Your task to perform on an android device: Go to ESPN.com Image 0: 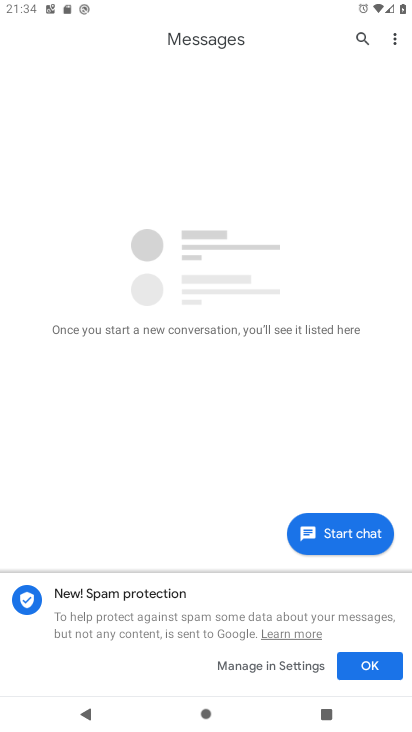
Step 0: press home button
Your task to perform on an android device: Go to ESPN.com Image 1: 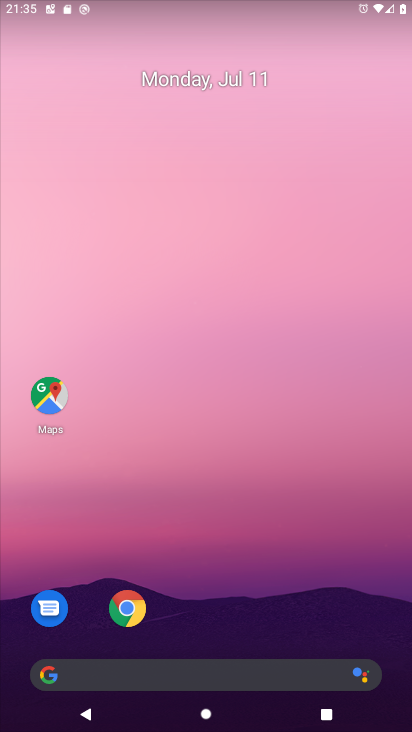
Step 1: click (219, 679)
Your task to perform on an android device: Go to ESPN.com Image 2: 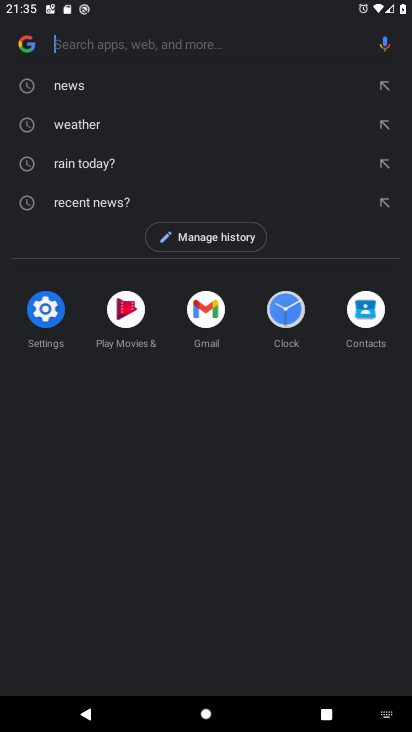
Step 2: type "espn.com"
Your task to perform on an android device: Go to ESPN.com Image 3: 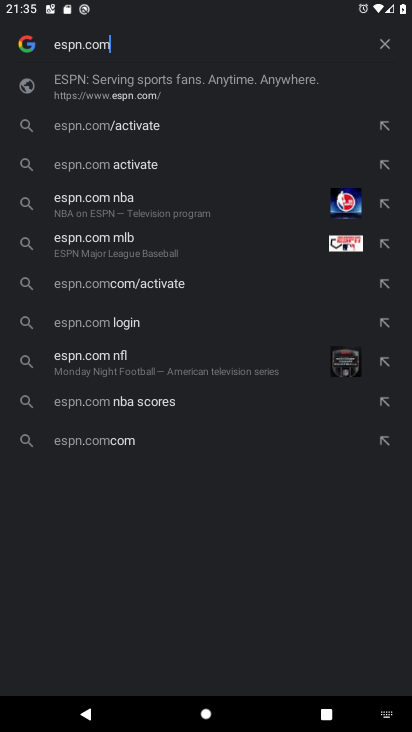
Step 3: click (239, 87)
Your task to perform on an android device: Go to ESPN.com Image 4: 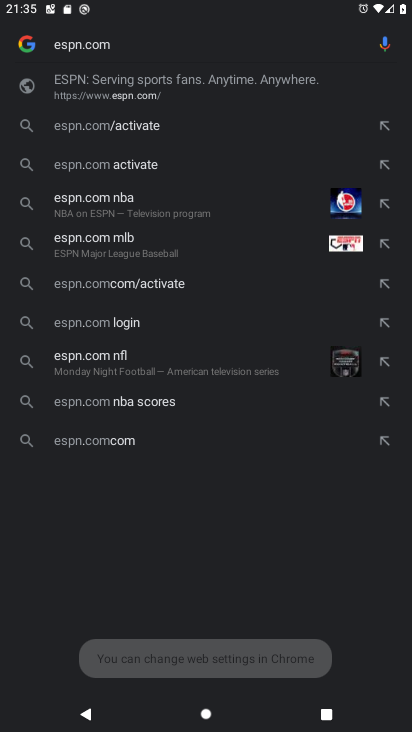
Step 4: task complete